Your task to perform on an android device: check battery use Image 0: 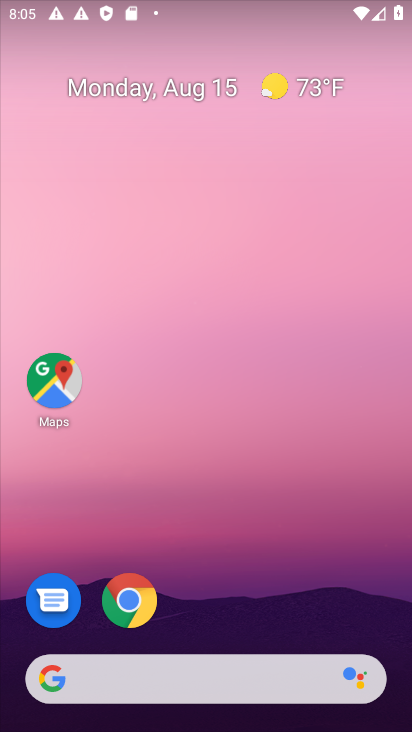
Step 0: drag from (219, 645) to (224, 122)
Your task to perform on an android device: check battery use Image 1: 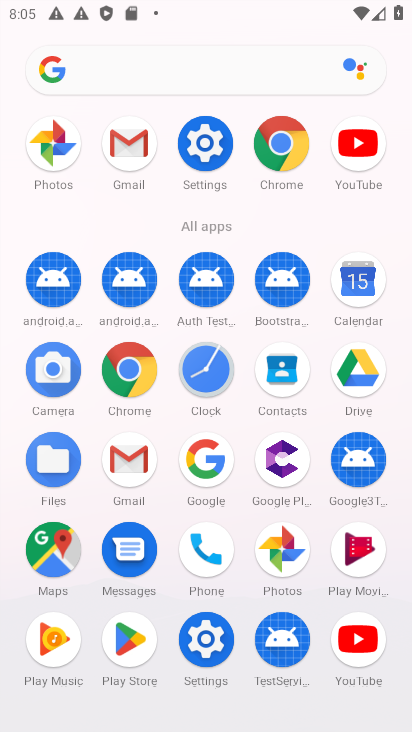
Step 1: click (199, 139)
Your task to perform on an android device: check battery use Image 2: 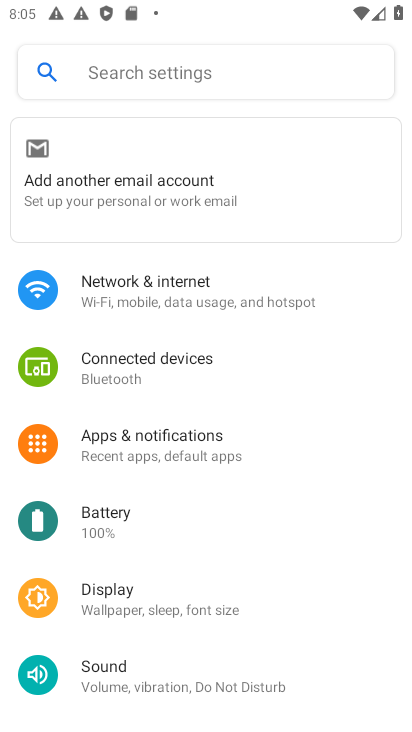
Step 2: click (95, 520)
Your task to perform on an android device: check battery use Image 3: 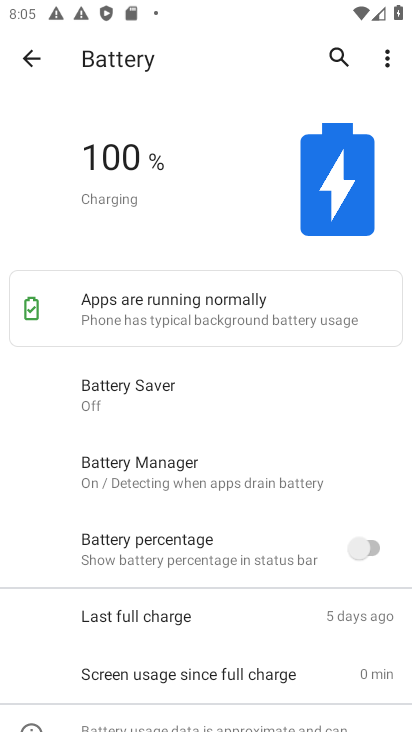
Step 3: click (388, 64)
Your task to perform on an android device: check battery use Image 4: 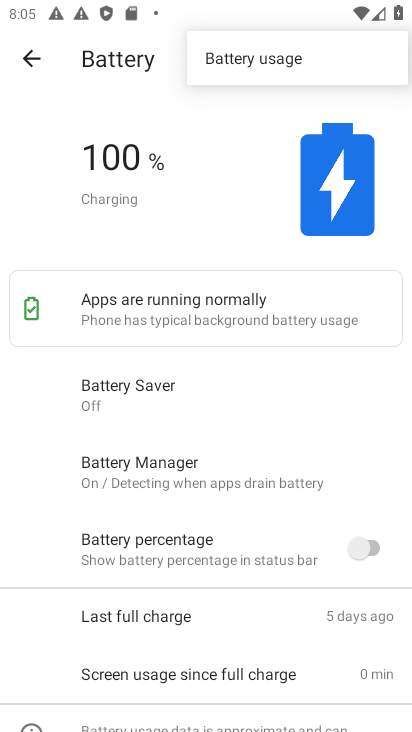
Step 4: click (287, 60)
Your task to perform on an android device: check battery use Image 5: 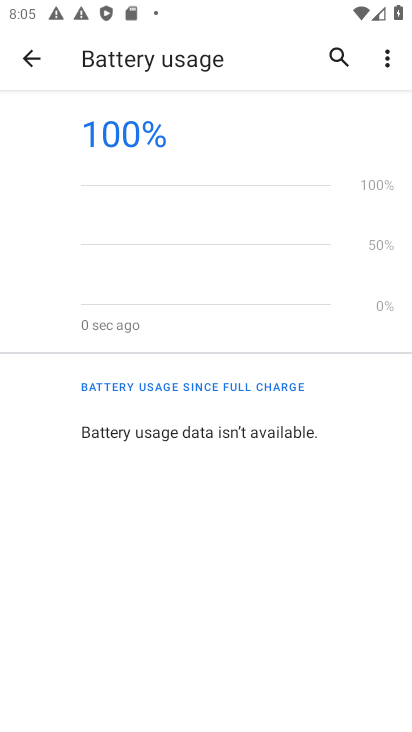
Step 5: task complete